Your task to perform on an android device: Go to Amazon Image 0: 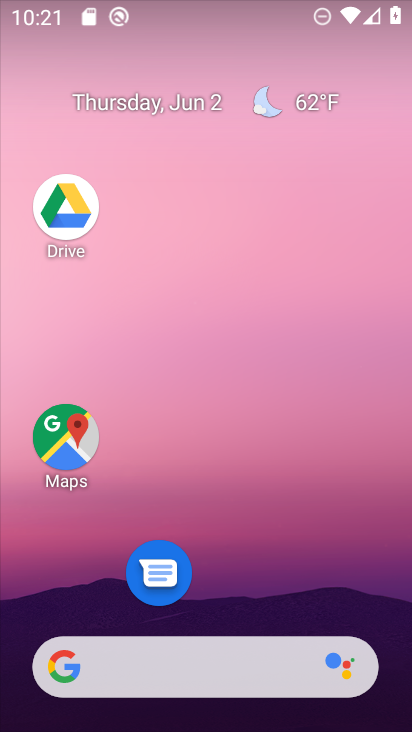
Step 0: drag from (202, 642) to (130, 9)
Your task to perform on an android device: Go to Amazon Image 1: 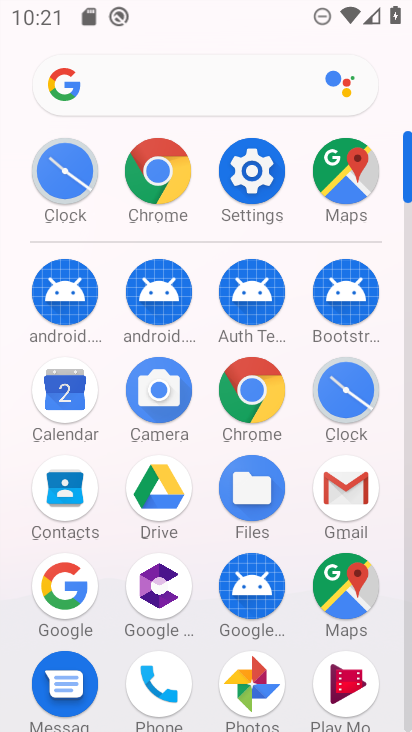
Step 1: click (144, 158)
Your task to perform on an android device: Go to Amazon Image 2: 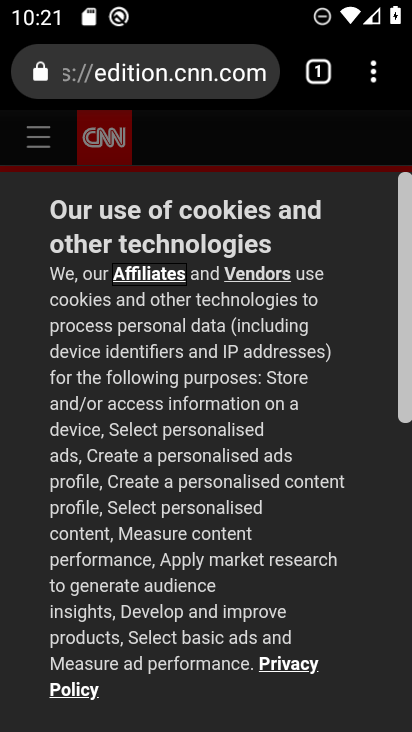
Step 2: click (319, 82)
Your task to perform on an android device: Go to Amazon Image 3: 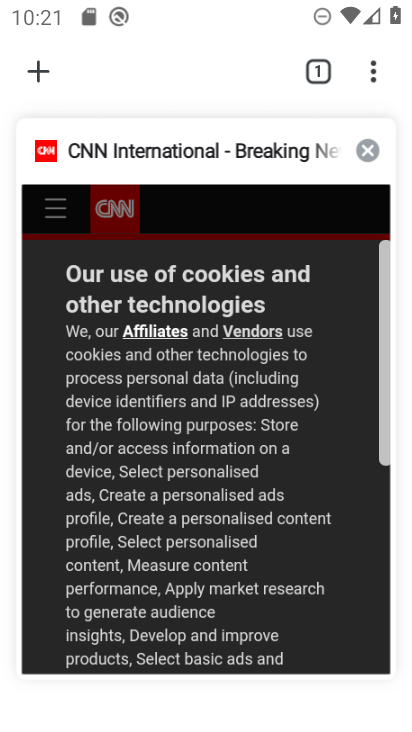
Step 3: click (33, 72)
Your task to perform on an android device: Go to Amazon Image 4: 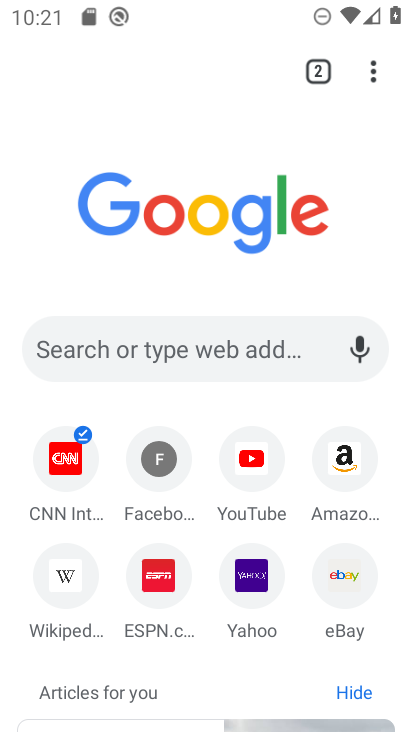
Step 4: click (346, 456)
Your task to perform on an android device: Go to Amazon Image 5: 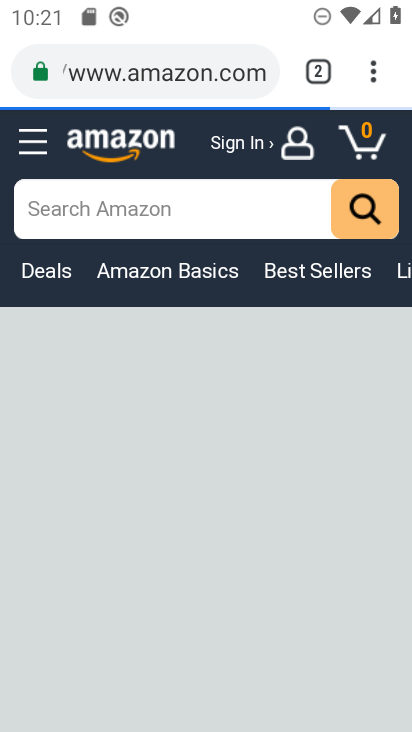
Step 5: task complete